Your task to perform on an android device: Clear all items from cart on ebay.com. Search for logitech g903 on ebay.com, select the first entry, add it to the cart, then select checkout. Image 0: 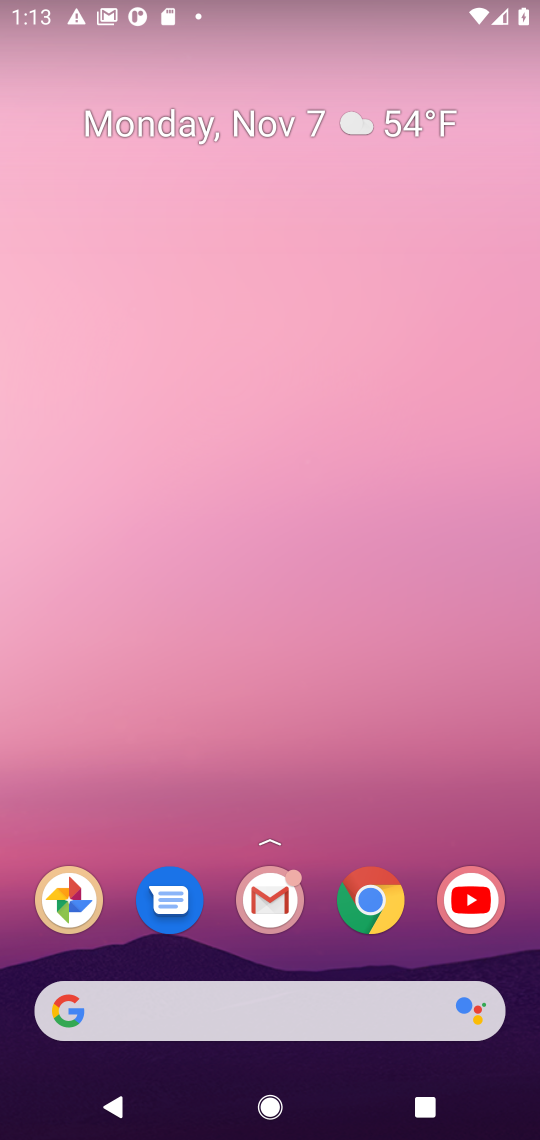
Step 0: click (303, 1009)
Your task to perform on an android device: Clear all items from cart on ebay.com. Search for logitech g903 on ebay.com, select the first entry, add it to the cart, then select checkout. Image 1: 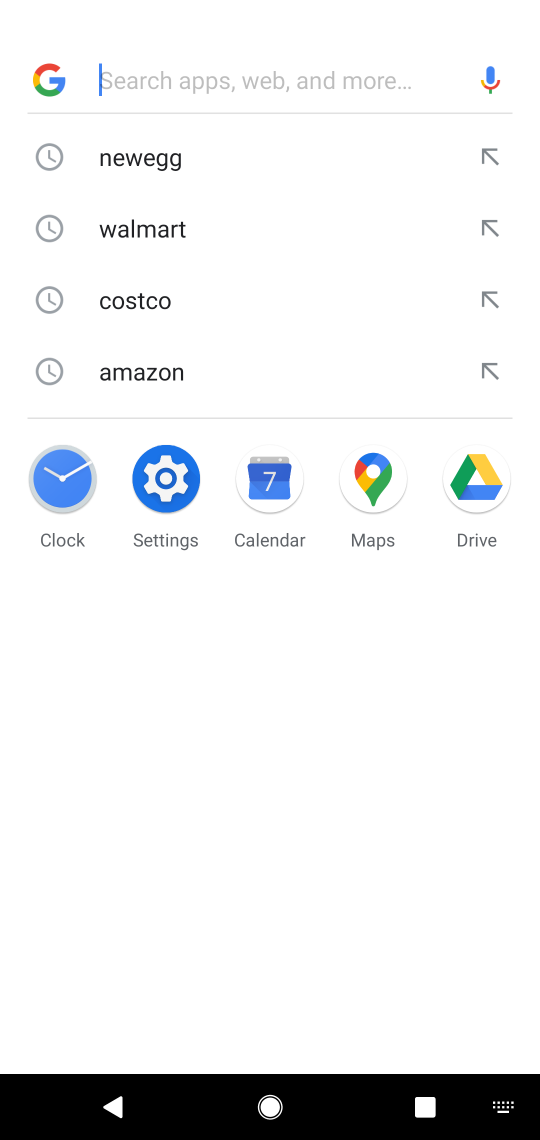
Step 1: type "ebay.com"
Your task to perform on an android device: Clear all items from cart on ebay.com. Search for logitech g903 on ebay.com, select the first entry, add it to the cart, then select checkout. Image 2: 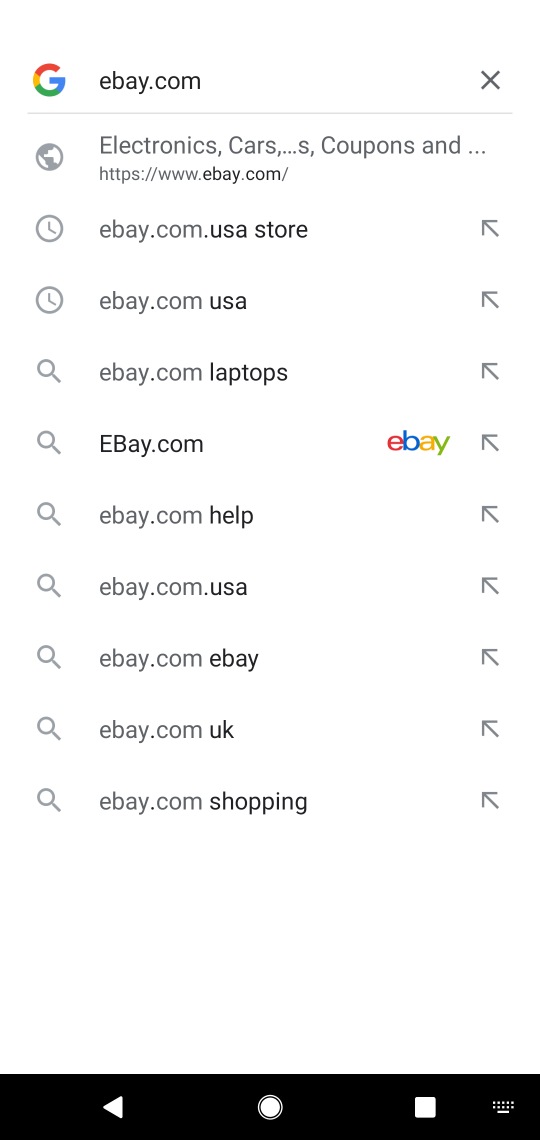
Step 2: click (376, 462)
Your task to perform on an android device: Clear all items from cart on ebay.com. Search for logitech g903 on ebay.com, select the first entry, add it to the cart, then select checkout. Image 3: 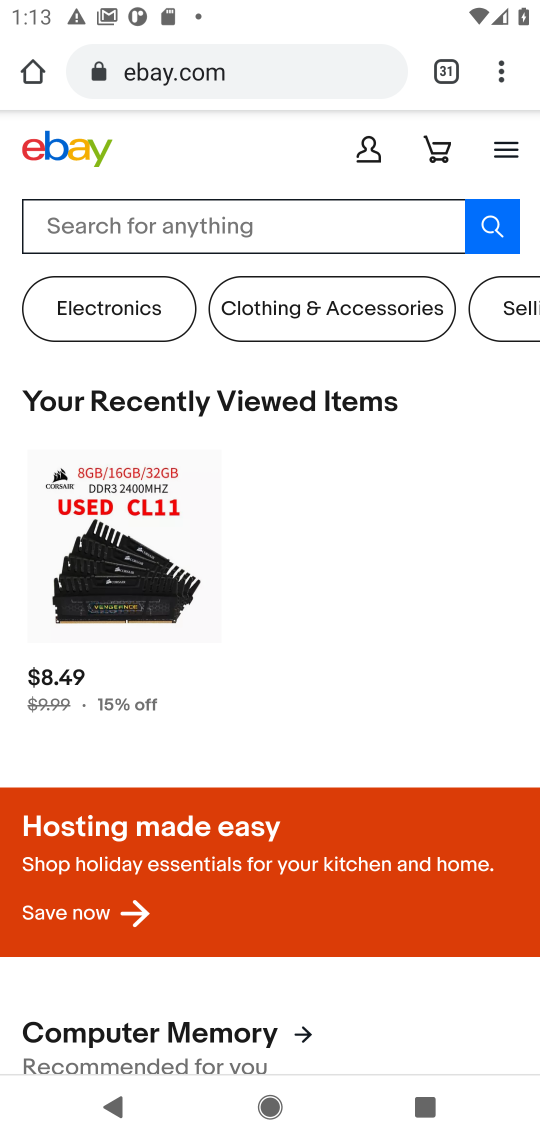
Step 3: click (171, 233)
Your task to perform on an android device: Clear all items from cart on ebay.com. Search for logitech g903 on ebay.com, select the first entry, add it to the cart, then select checkout. Image 4: 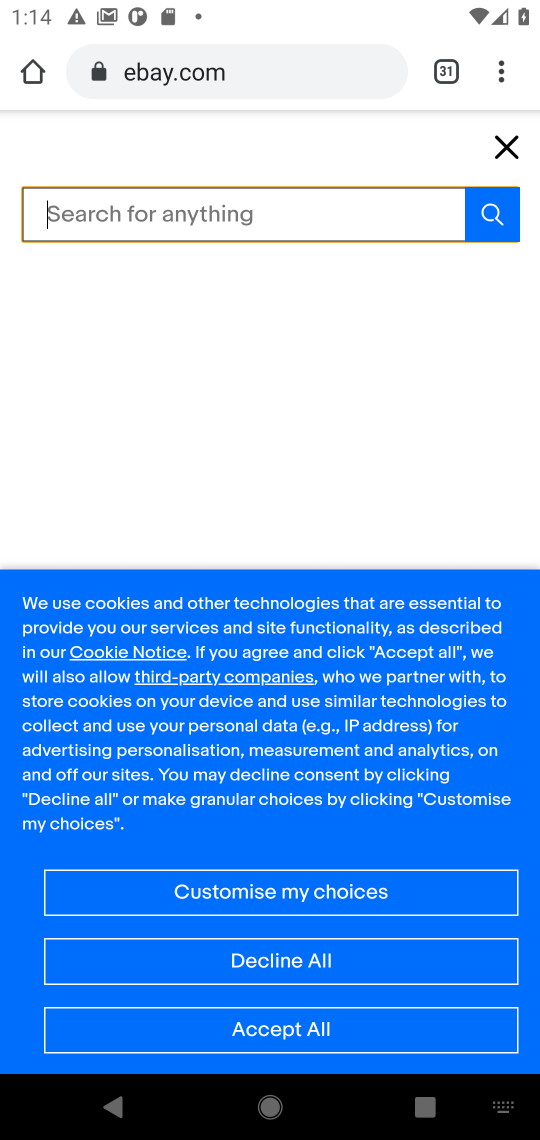
Step 4: task complete